Your task to perform on an android device: turn on wifi Image 0: 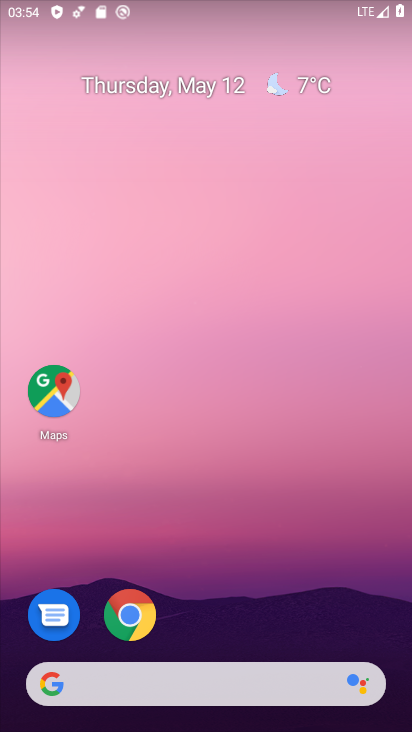
Step 0: drag from (320, 2) to (310, 370)
Your task to perform on an android device: turn on wifi Image 1: 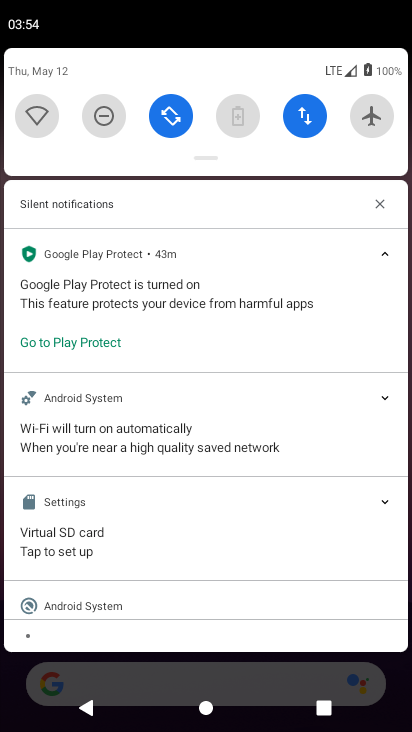
Step 1: click (41, 109)
Your task to perform on an android device: turn on wifi Image 2: 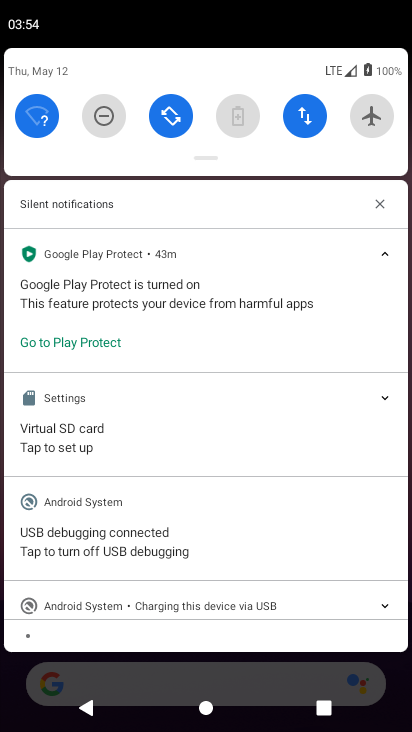
Step 2: task complete